Your task to perform on an android device: create a new album in the google photos Image 0: 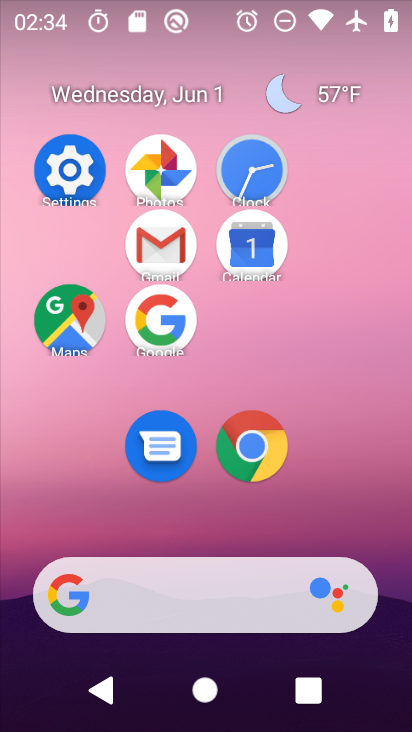
Step 0: click (190, 166)
Your task to perform on an android device: create a new album in the google photos Image 1: 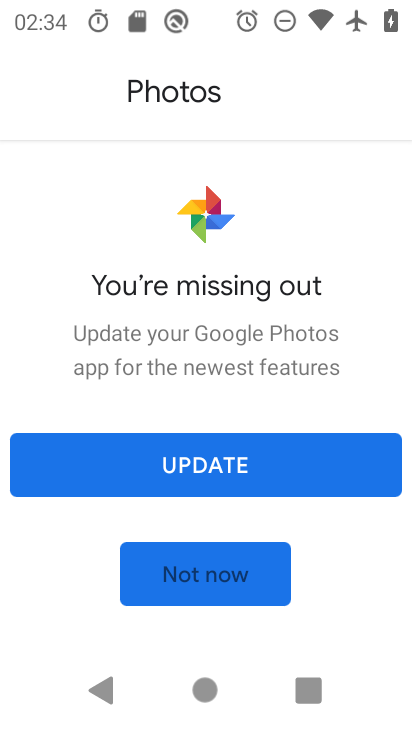
Step 1: click (262, 474)
Your task to perform on an android device: create a new album in the google photos Image 2: 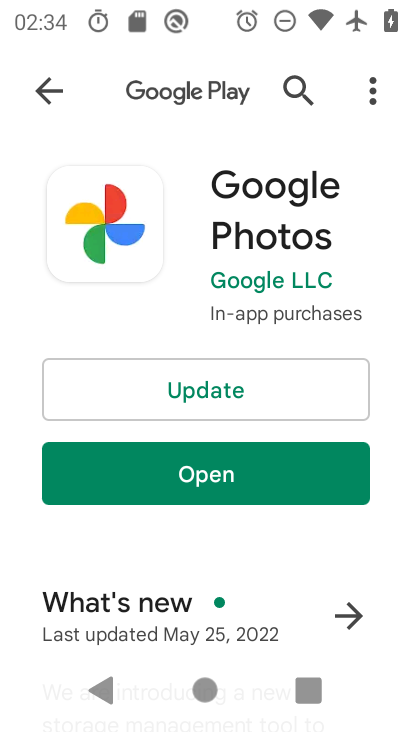
Step 2: click (304, 490)
Your task to perform on an android device: create a new album in the google photos Image 3: 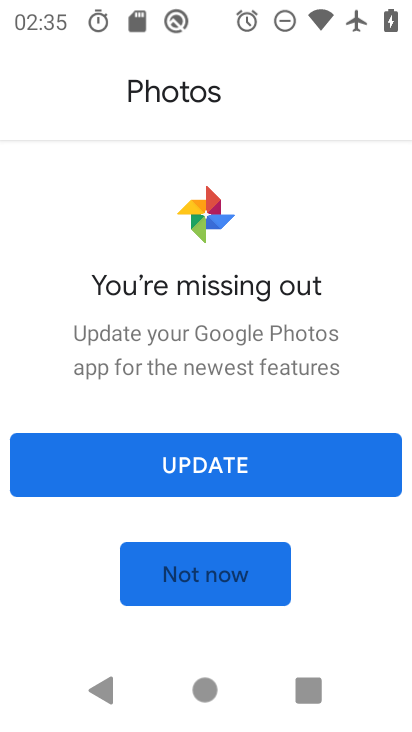
Step 3: click (265, 584)
Your task to perform on an android device: create a new album in the google photos Image 4: 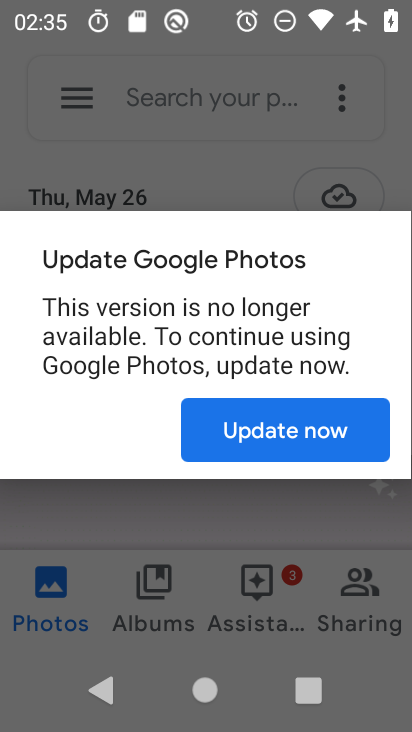
Step 4: click (369, 507)
Your task to perform on an android device: create a new album in the google photos Image 5: 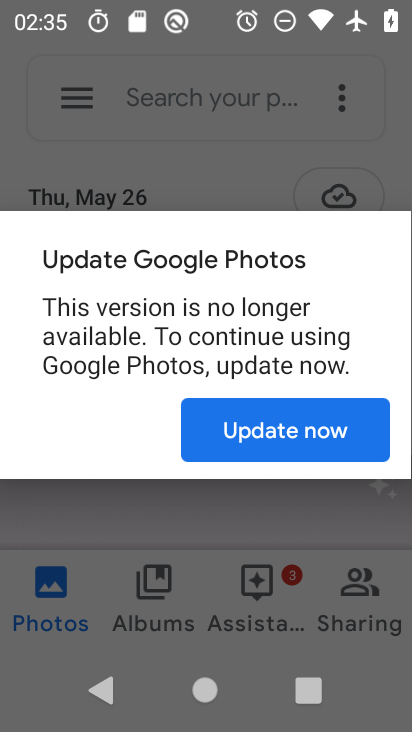
Step 5: click (306, 436)
Your task to perform on an android device: create a new album in the google photos Image 6: 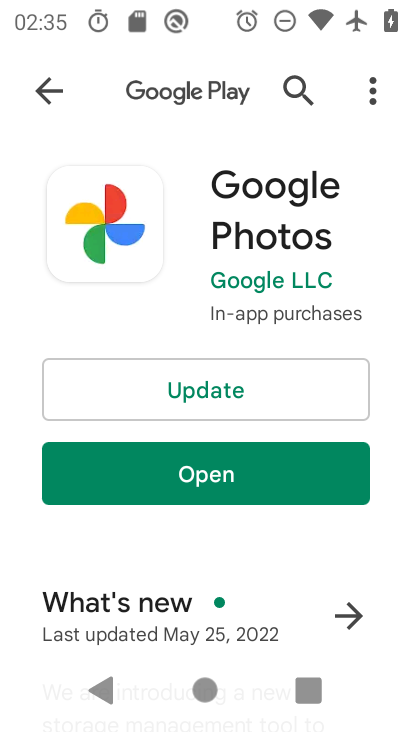
Step 6: click (229, 464)
Your task to perform on an android device: create a new album in the google photos Image 7: 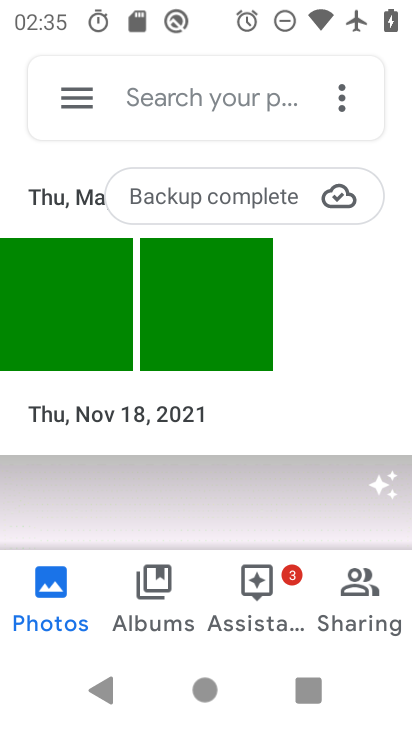
Step 7: click (148, 615)
Your task to perform on an android device: create a new album in the google photos Image 8: 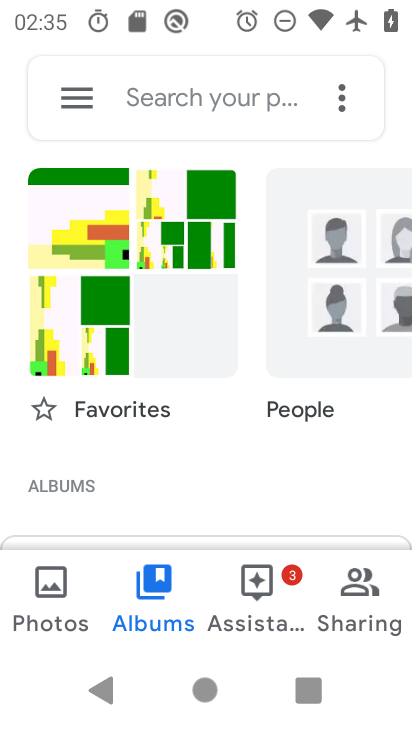
Step 8: drag from (157, 482) to (207, 9)
Your task to perform on an android device: create a new album in the google photos Image 9: 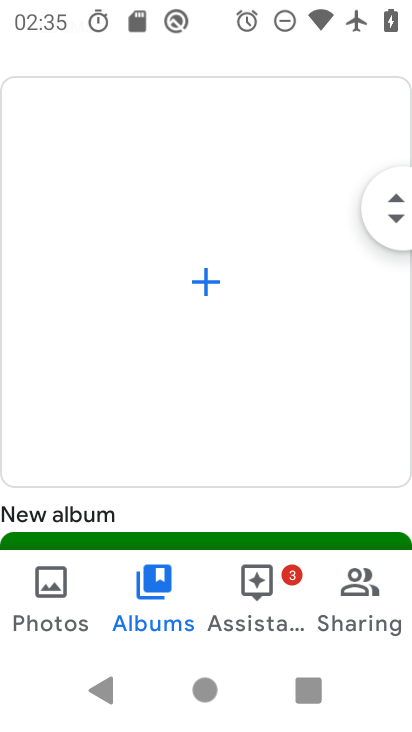
Step 9: click (204, 284)
Your task to perform on an android device: create a new album in the google photos Image 10: 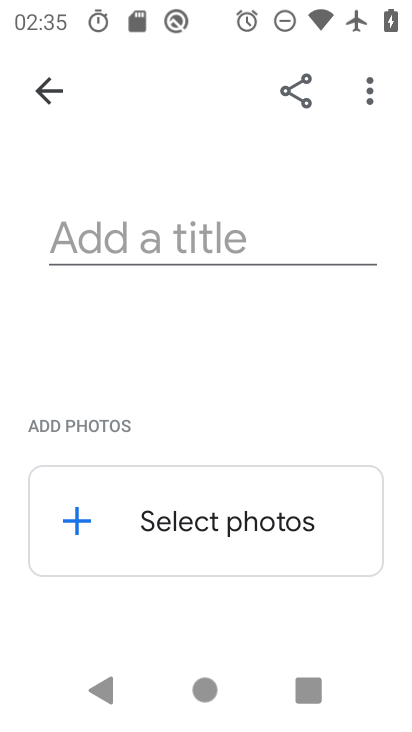
Step 10: click (214, 248)
Your task to perform on an android device: create a new album in the google photos Image 11: 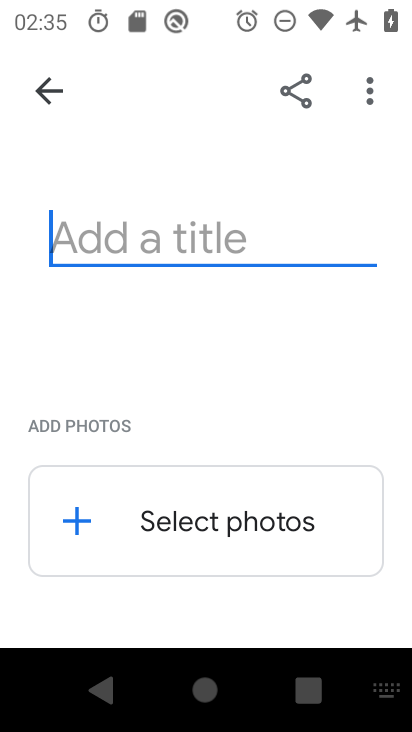
Step 11: type "yyrrewq"
Your task to perform on an android device: create a new album in the google photos Image 12: 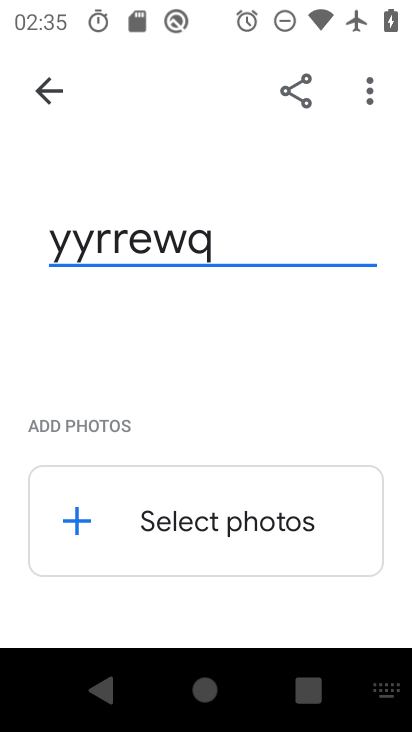
Step 12: click (266, 524)
Your task to perform on an android device: create a new album in the google photos Image 13: 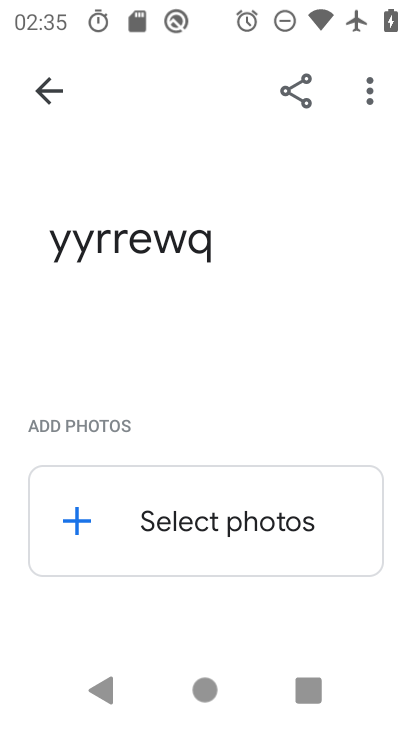
Step 13: click (220, 527)
Your task to perform on an android device: create a new album in the google photos Image 14: 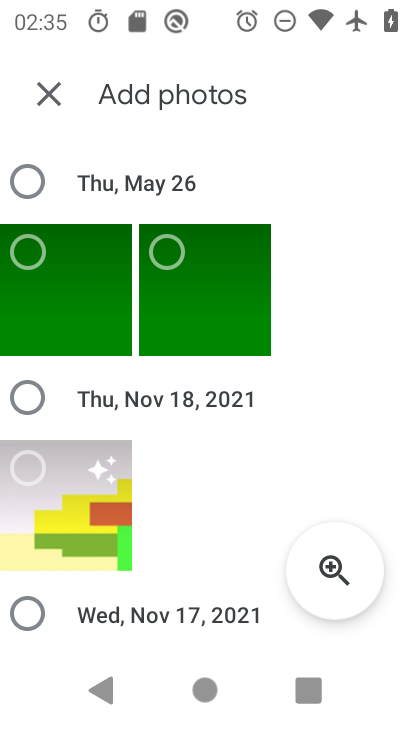
Step 14: click (41, 282)
Your task to perform on an android device: create a new album in the google photos Image 15: 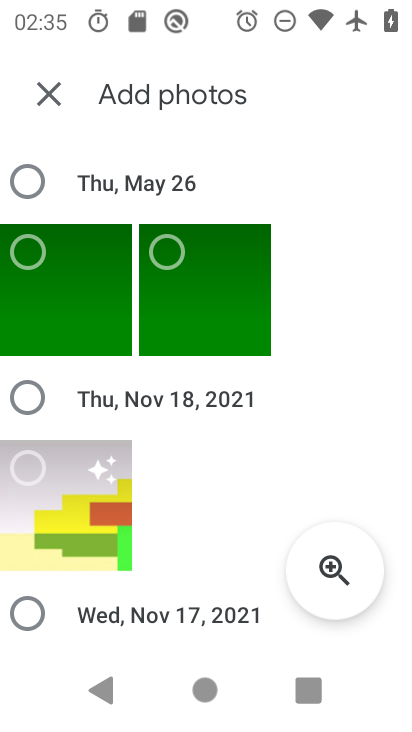
Step 15: click (281, 276)
Your task to perform on an android device: create a new album in the google photos Image 16: 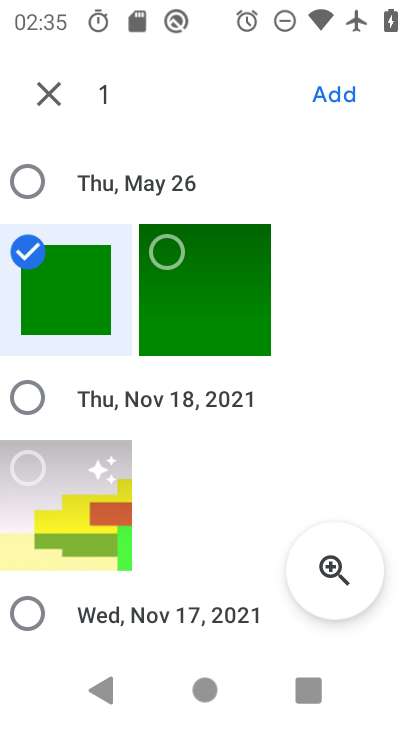
Step 16: click (343, 85)
Your task to perform on an android device: create a new album in the google photos Image 17: 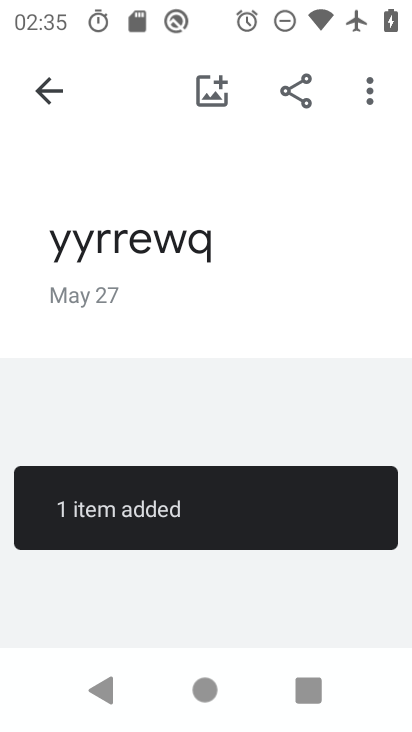
Step 17: task complete